Your task to perform on an android device: Open accessibility settings Image 0: 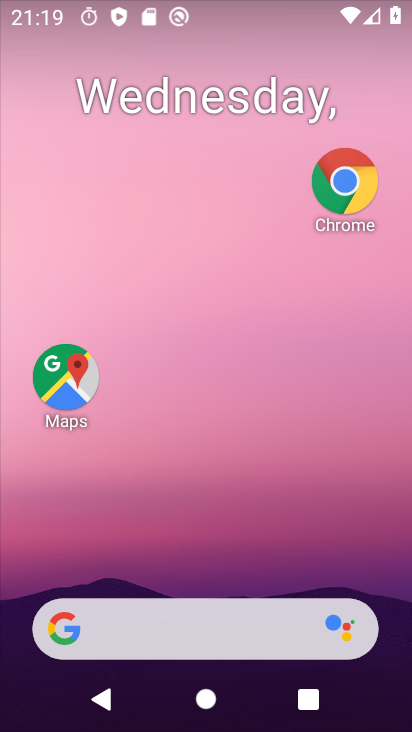
Step 0: drag from (286, 657) to (226, 205)
Your task to perform on an android device: Open accessibility settings Image 1: 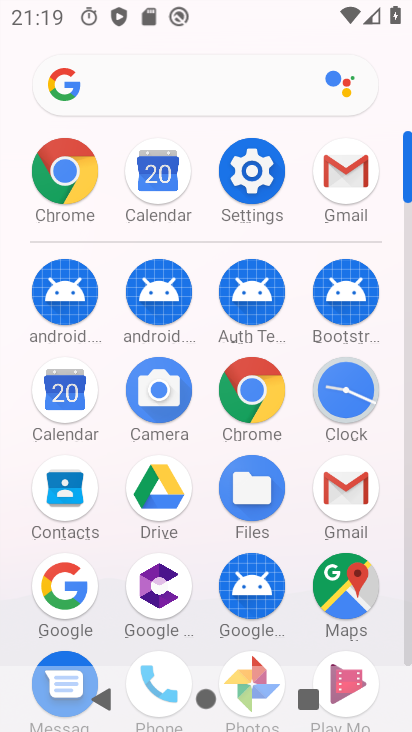
Step 1: click (249, 189)
Your task to perform on an android device: Open accessibility settings Image 2: 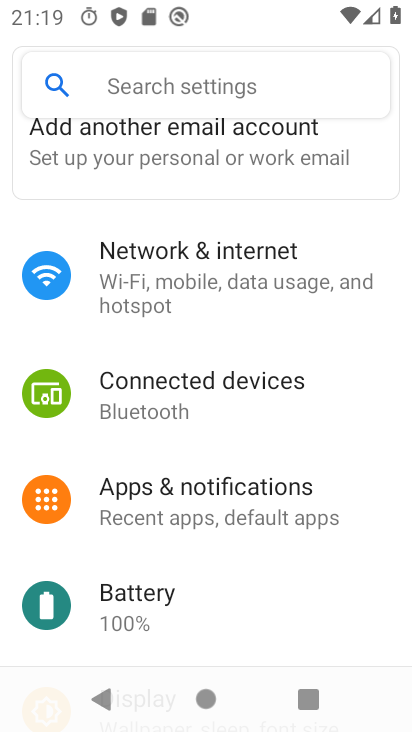
Step 2: click (202, 80)
Your task to perform on an android device: Open accessibility settings Image 3: 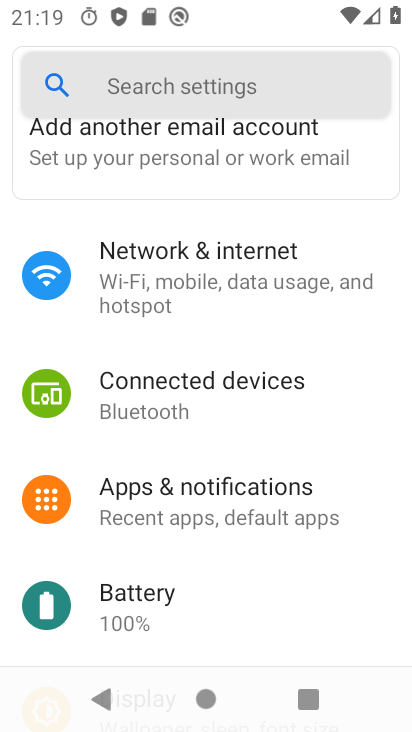
Step 3: click (179, 90)
Your task to perform on an android device: Open accessibility settings Image 4: 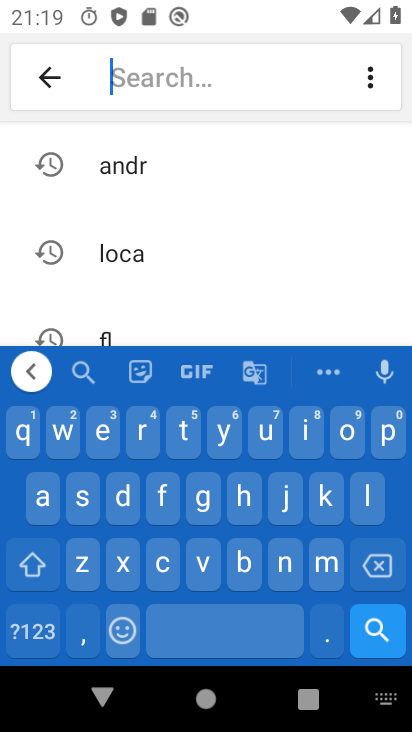
Step 4: click (33, 514)
Your task to perform on an android device: Open accessibility settings Image 5: 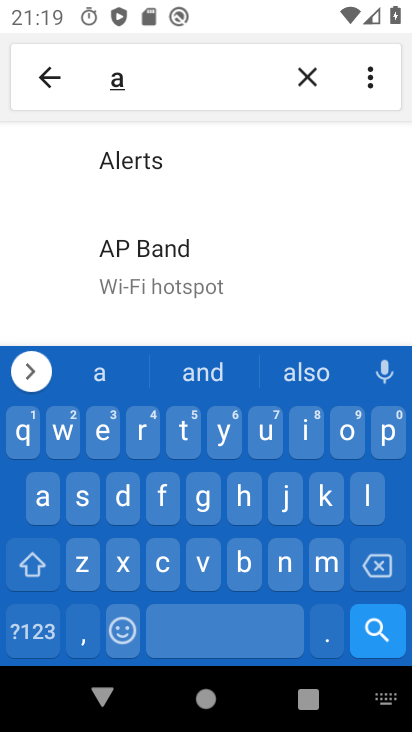
Step 5: click (165, 559)
Your task to perform on an android device: Open accessibility settings Image 6: 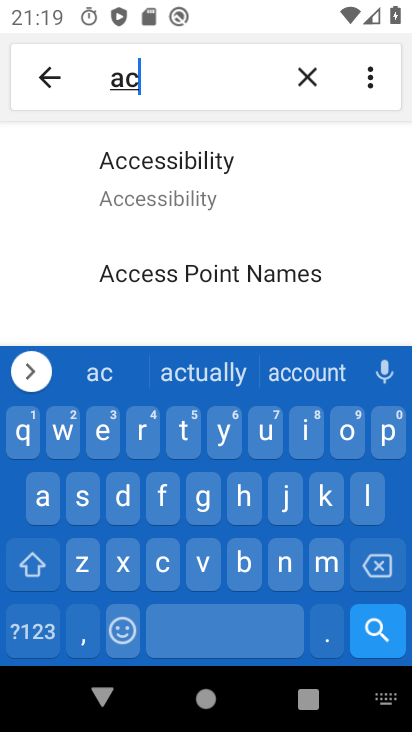
Step 6: click (218, 179)
Your task to perform on an android device: Open accessibility settings Image 7: 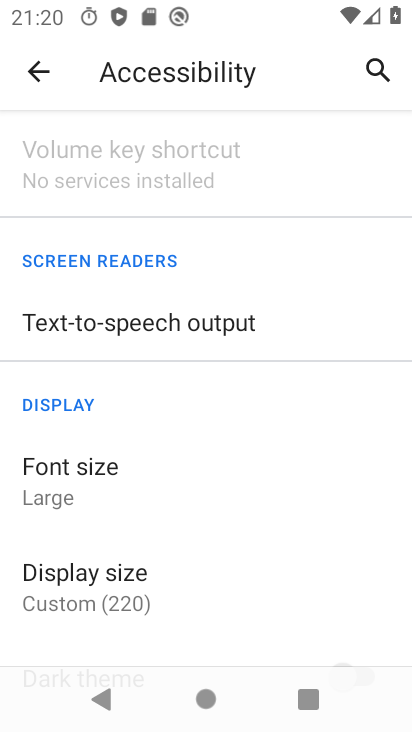
Step 7: task complete